Your task to perform on an android device: toggle translation in the chrome app Image 0: 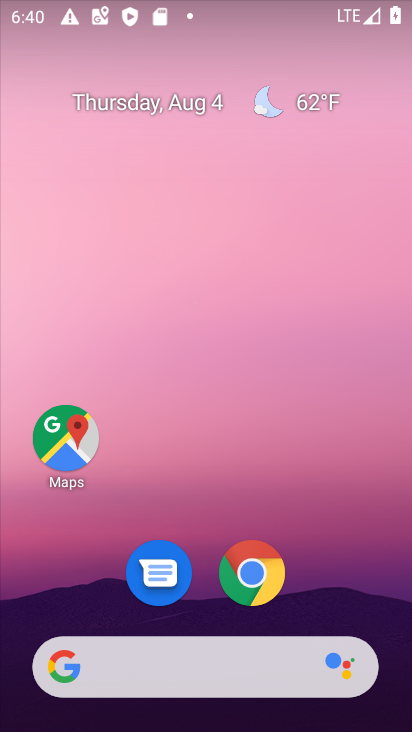
Step 0: press home button
Your task to perform on an android device: toggle translation in the chrome app Image 1: 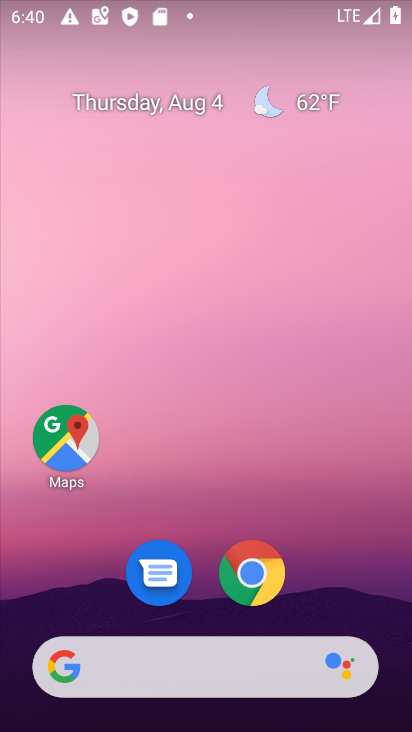
Step 1: drag from (212, 624) to (220, 186)
Your task to perform on an android device: toggle translation in the chrome app Image 2: 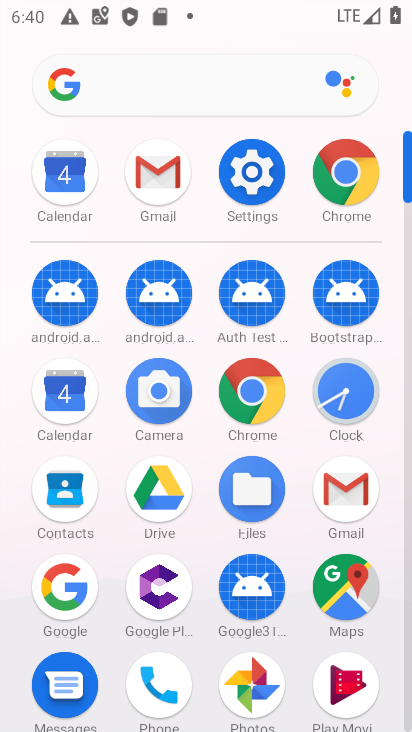
Step 2: click (365, 180)
Your task to perform on an android device: toggle translation in the chrome app Image 3: 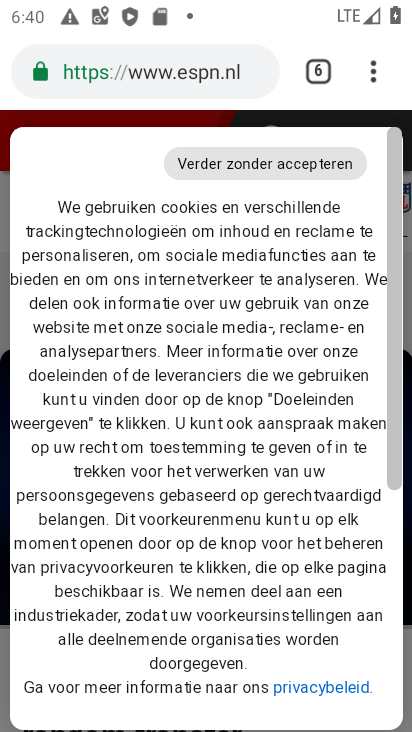
Step 3: drag from (370, 76) to (125, 572)
Your task to perform on an android device: toggle translation in the chrome app Image 4: 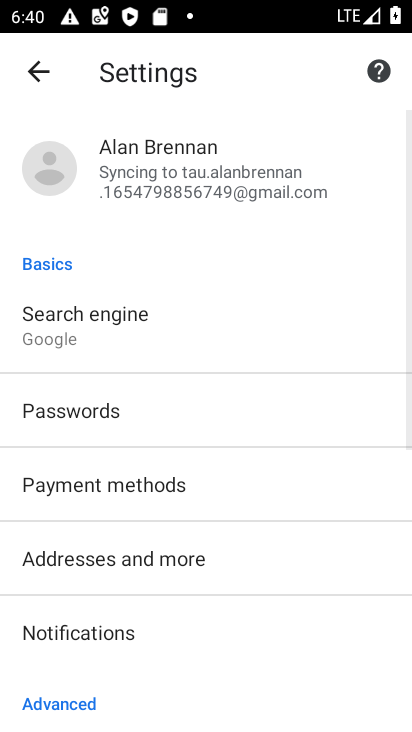
Step 4: drag from (301, 624) to (304, 99)
Your task to perform on an android device: toggle translation in the chrome app Image 5: 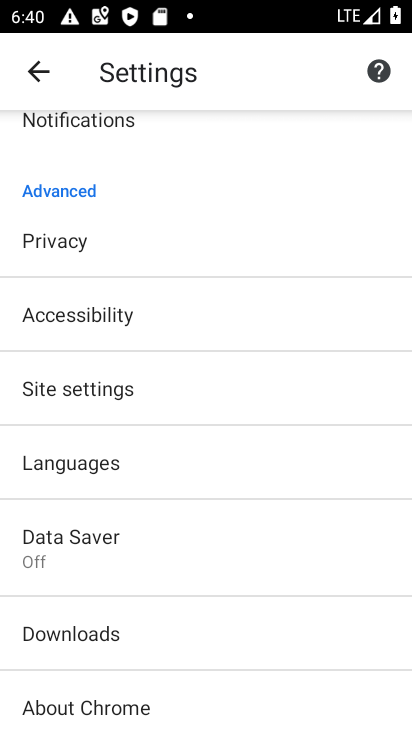
Step 5: click (88, 464)
Your task to perform on an android device: toggle translation in the chrome app Image 6: 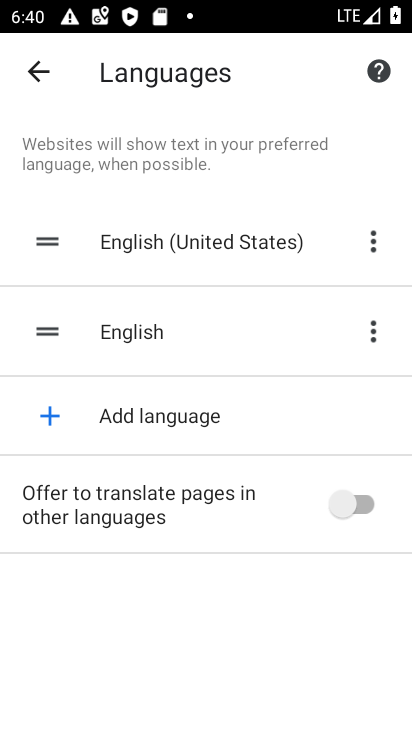
Step 6: click (341, 503)
Your task to perform on an android device: toggle translation in the chrome app Image 7: 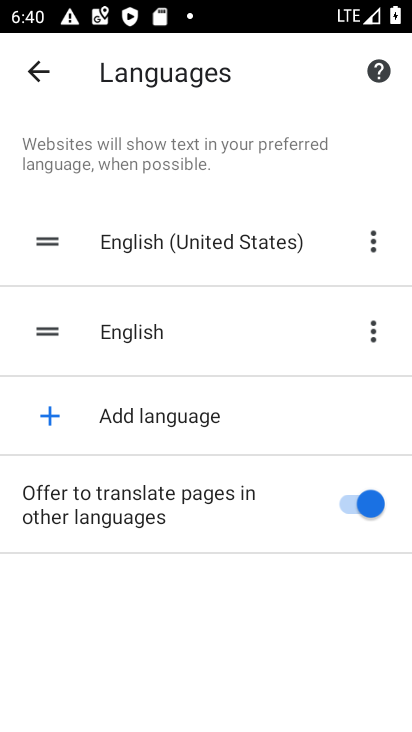
Step 7: task complete